Your task to perform on an android device: empty trash in the gmail app Image 0: 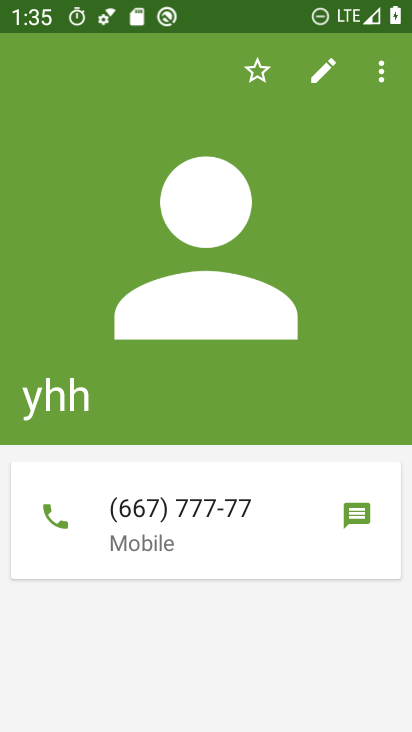
Step 0: press home button
Your task to perform on an android device: empty trash in the gmail app Image 1: 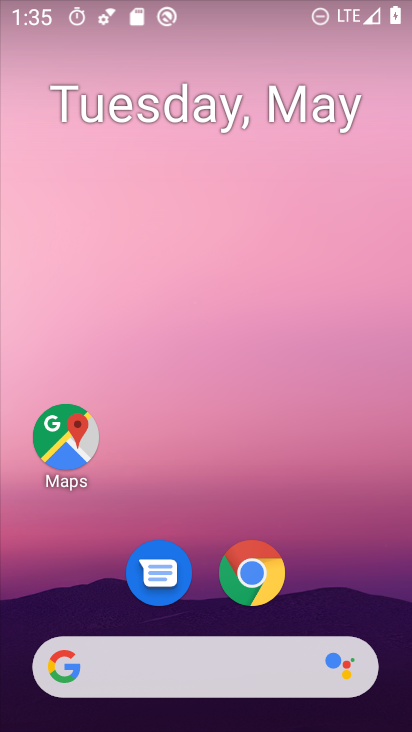
Step 1: drag from (374, 575) to (297, 10)
Your task to perform on an android device: empty trash in the gmail app Image 2: 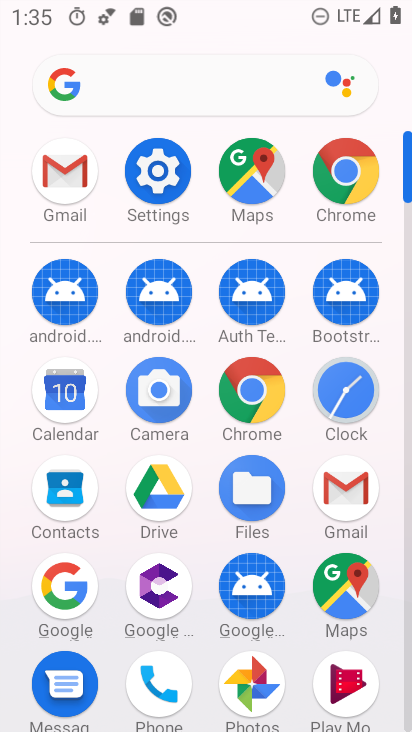
Step 2: click (80, 181)
Your task to perform on an android device: empty trash in the gmail app Image 3: 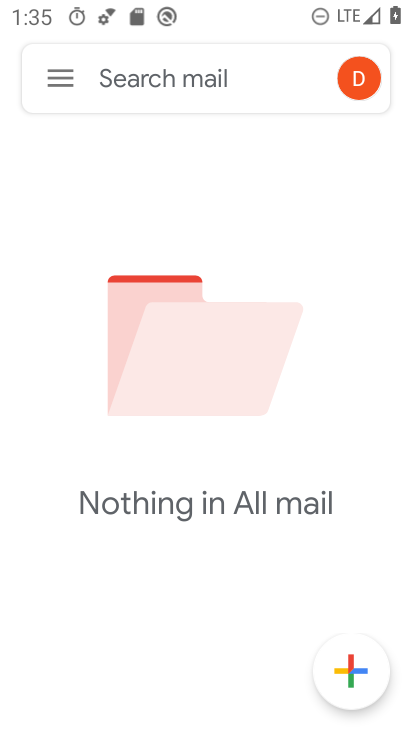
Step 3: click (54, 82)
Your task to perform on an android device: empty trash in the gmail app Image 4: 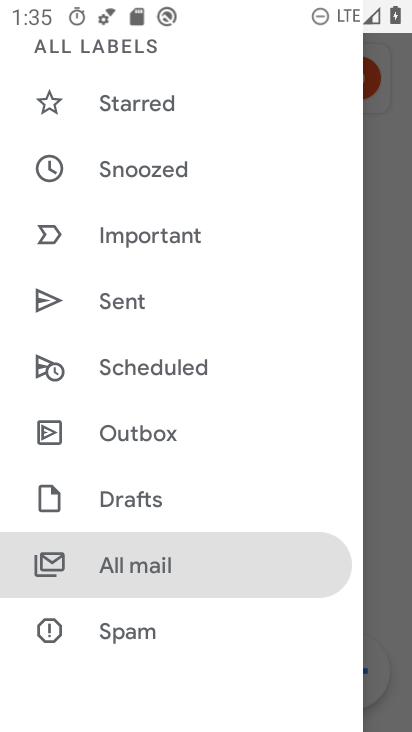
Step 4: drag from (206, 218) to (241, 428)
Your task to perform on an android device: empty trash in the gmail app Image 5: 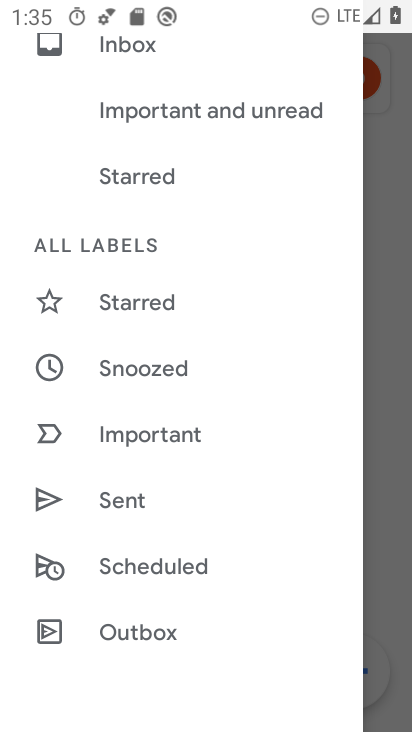
Step 5: drag from (276, 553) to (228, 135)
Your task to perform on an android device: empty trash in the gmail app Image 6: 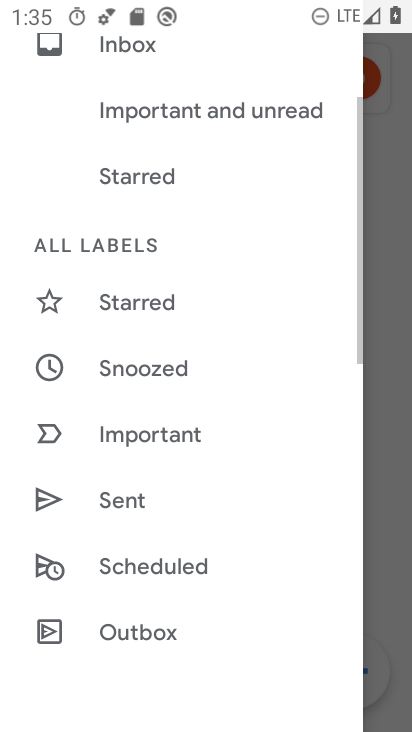
Step 6: drag from (174, 588) to (201, 229)
Your task to perform on an android device: empty trash in the gmail app Image 7: 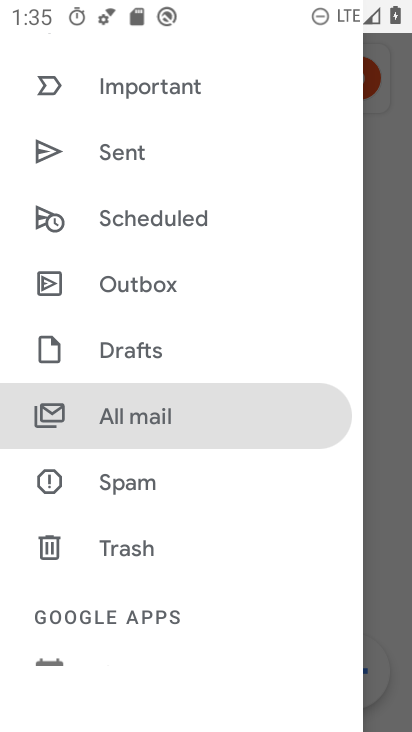
Step 7: click (143, 546)
Your task to perform on an android device: empty trash in the gmail app Image 8: 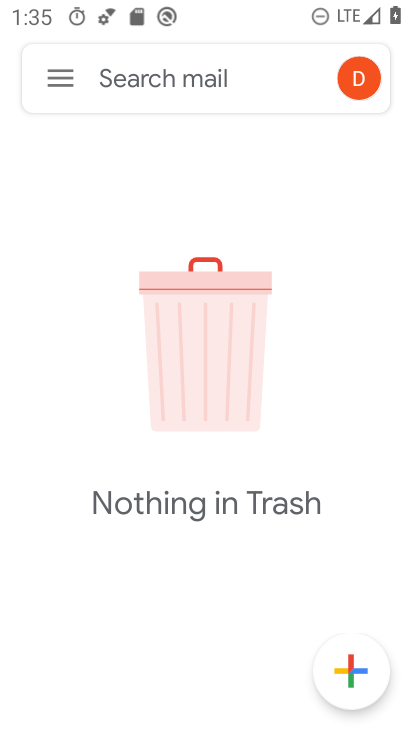
Step 8: task complete